Your task to perform on an android device: Open my contact list Image 0: 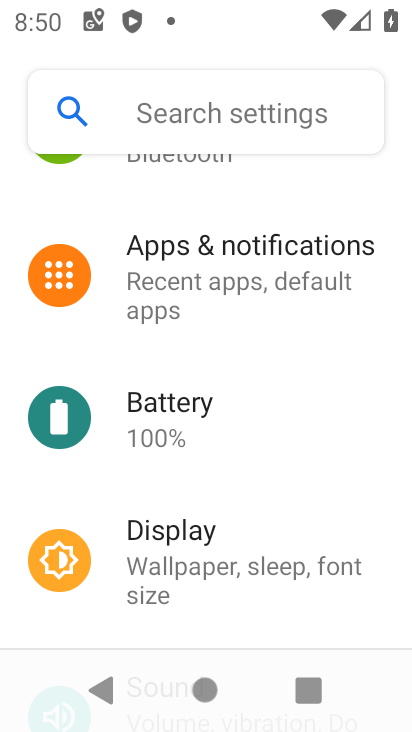
Step 0: press home button
Your task to perform on an android device: Open my contact list Image 1: 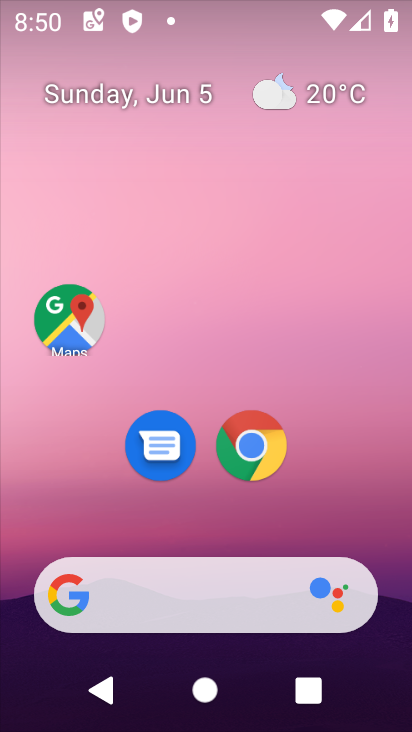
Step 1: drag from (282, 586) to (268, 0)
Your task to perform on an android device: Open my contact list Image 2: 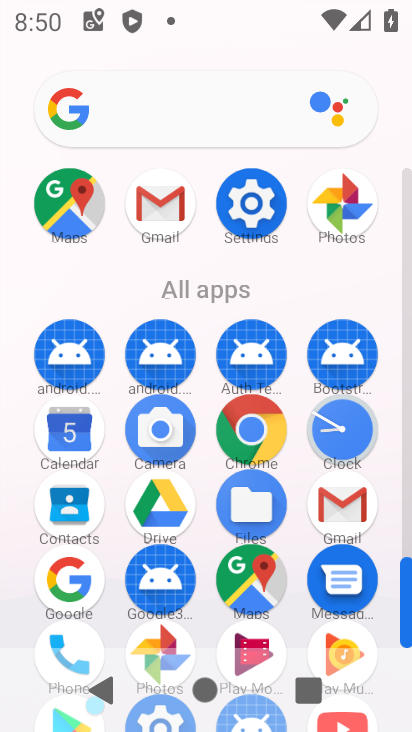
Step 2: click (79, 517)
Your task to perform on an android device: Open my contact list Image 3: 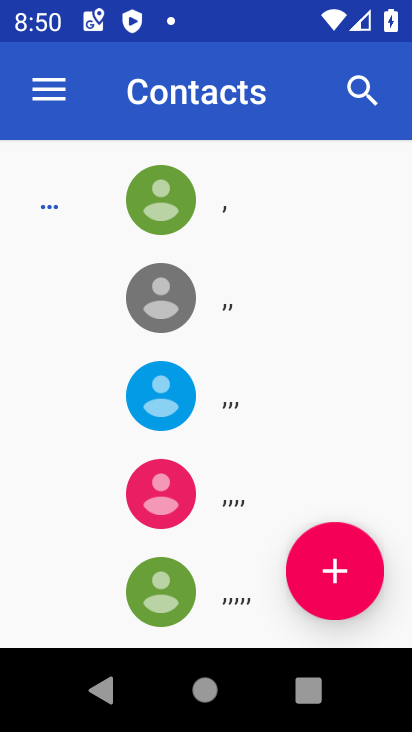
Step 3: task complete